Your task to perform on an android device: Search for the new Air Jordan 13 on Nike.com Image 0: 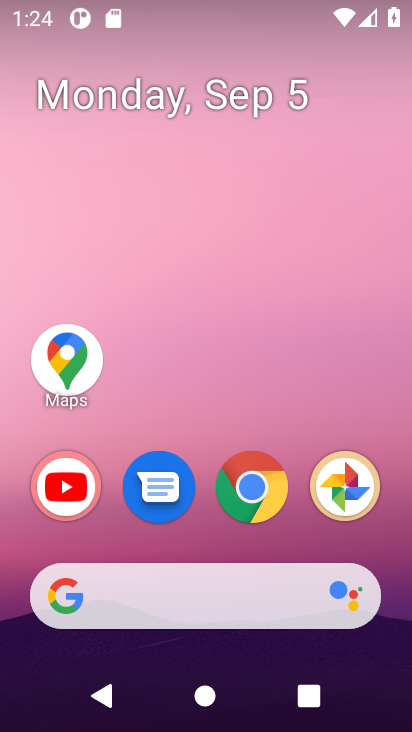
Step 0: click (247, 496)
Your task to perform on an android device: Search for the new Air Jordan 13 on Nike.com Image 1: 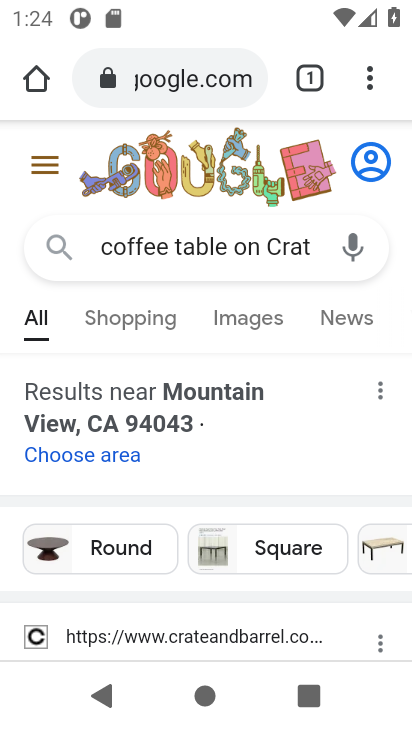
Step 1: click (191, 81)
Your task to perform on an android device: Search for the new Air Jordan 13 on Nike.com Image 2: 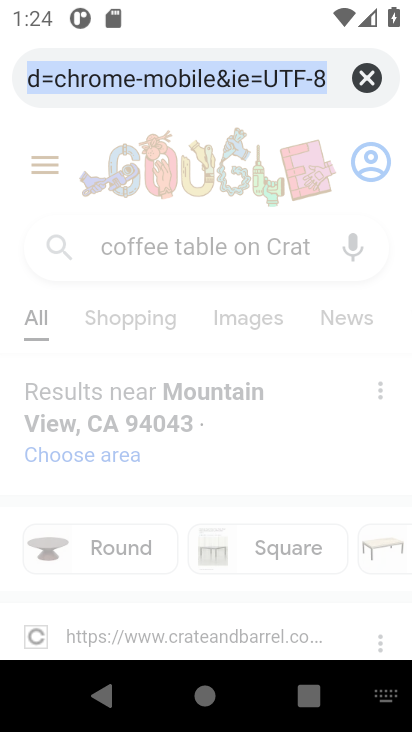
Step 2: click (356, 80)
Your task to perform on an android device: Search for the new Air Jordan 13 on Nike.com Image 3: 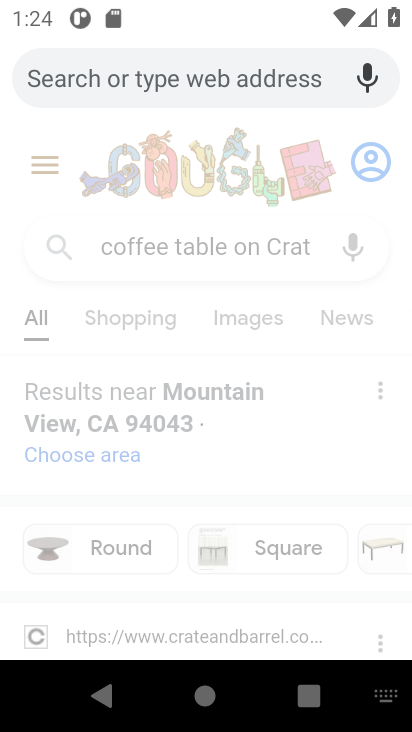
Step 3: type "the new Air Jordan 13 on Nike.com"
Your task to perform on an android device: Search for the new Air Jordan 13 on Nike.com Image 4: 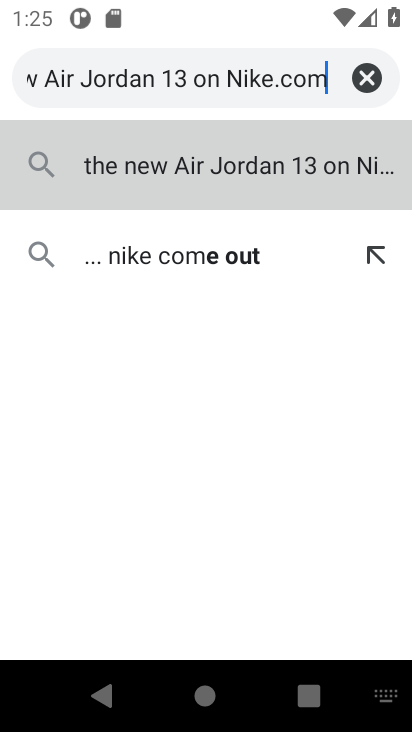
Step 4: click (177, 155)
Your task to perform on an android device: Search for the new Air Jordan 13 on Nike.com Image 5: 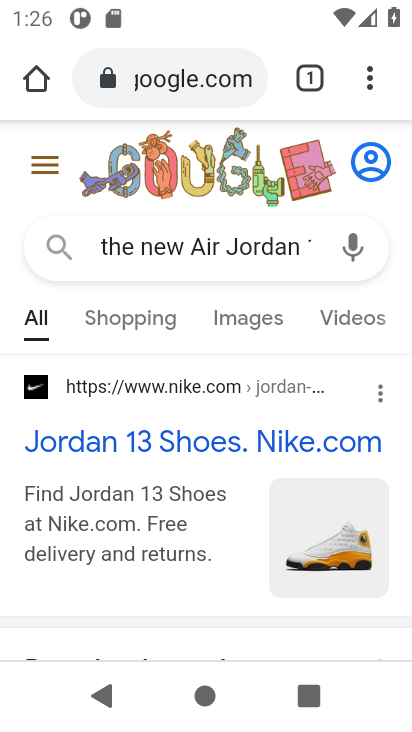
Step 5: task complete